Your task to perform on an android device: Open Google Image 0: 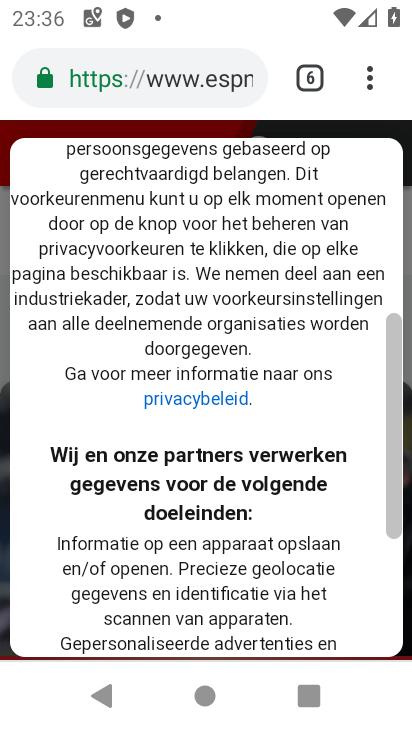
Step 0: press home button
Your task to perform on an android device: Open Google Image 1: 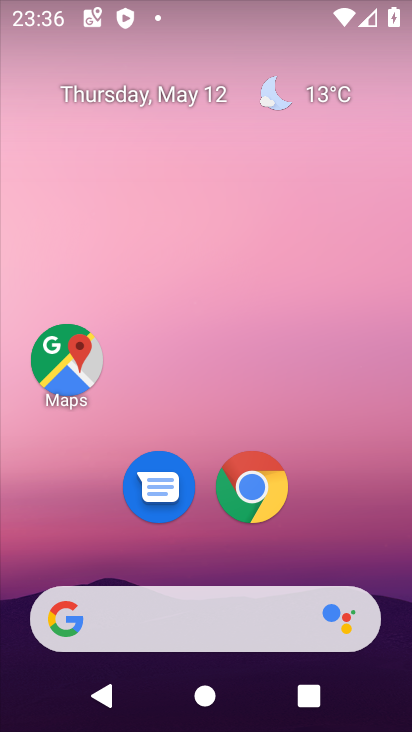
Step 1: click (226, 584)
Your task to perform on an android device: Open Google Image 2: 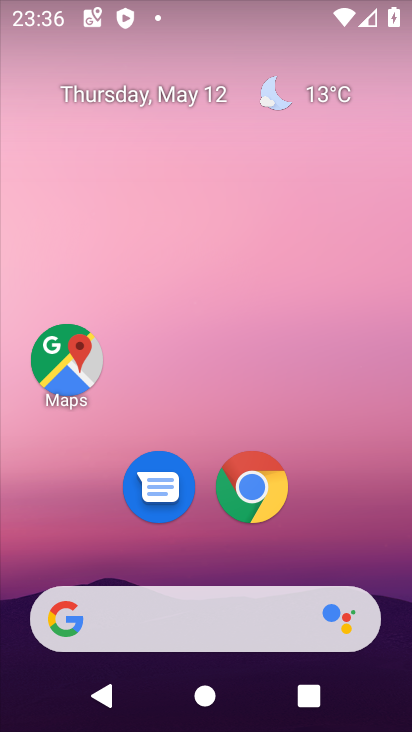
Step 2: click (190, 605)
Your task to perform on an android device: Open Google Image 3: 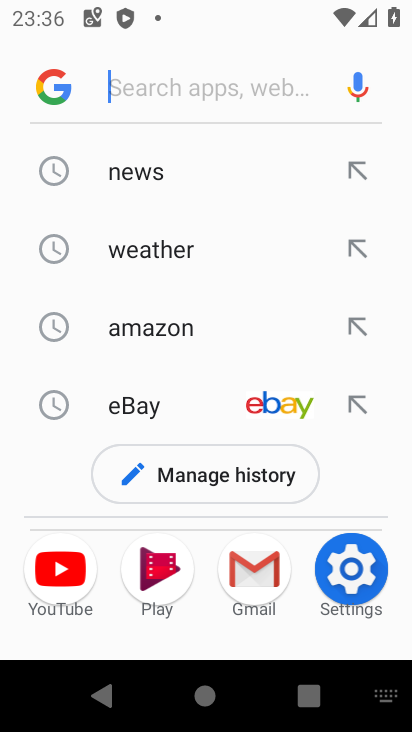
Step 3: task complete